Your task to perform on an android device: toggle priority inbox in the gmail app Image 0: 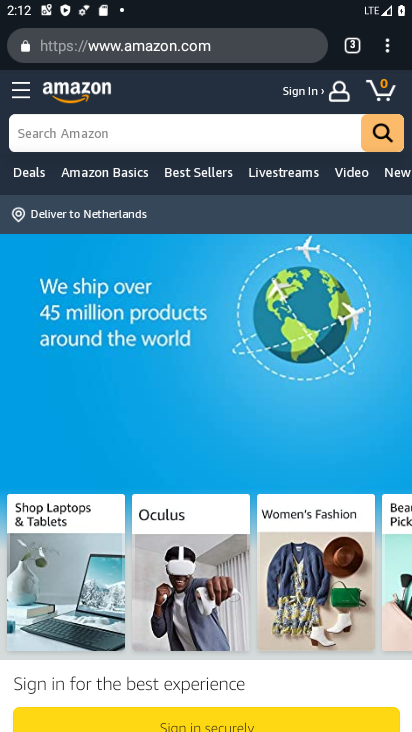
Step 0: press home button
Your task to perform on an android device: toggle priority inbox in the gmail app Image 1: 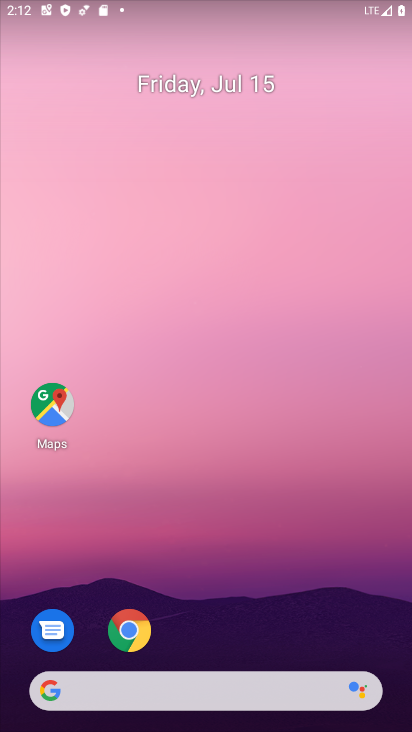
Step 1: drag from (270, 617) to (257, 113)
Your task to perform on an android device: toggle priority inbox in the gmail app Image 2: 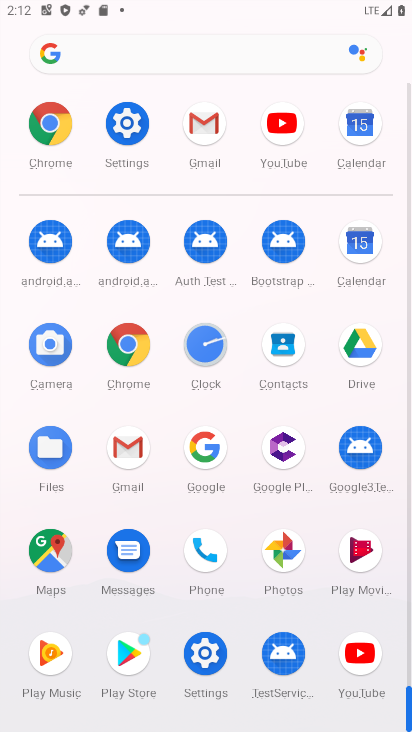
Step 2: click (205, 126)
Your task to perform on an android device: toggle priority inbox in the gmail app Image 3: 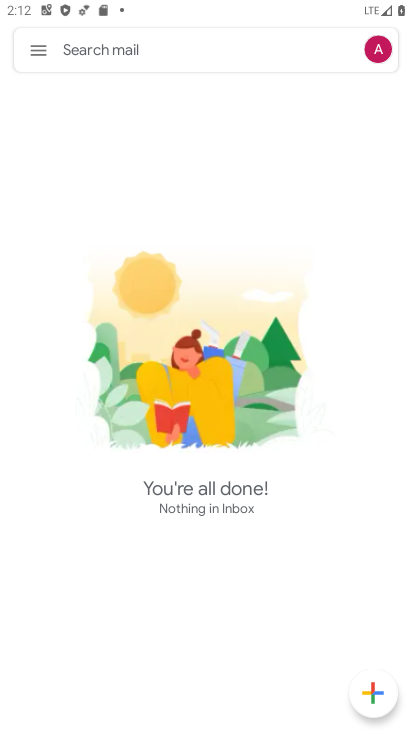
Step 3: click (40, 54)
Your task to perform on an android device: toggle priority inbox in the gmail app Image 4: 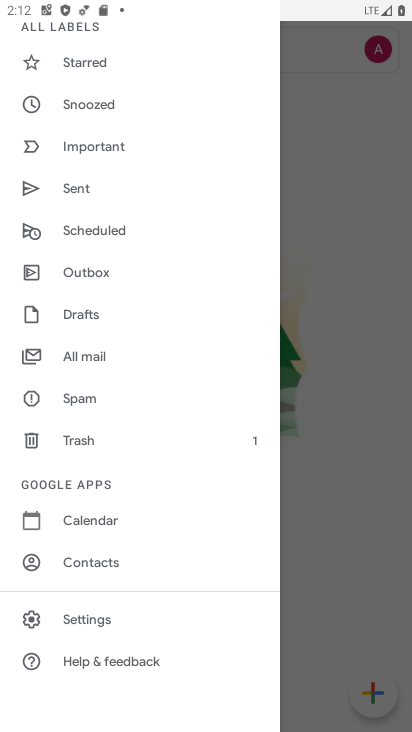
Step 4: click (104, 615)
Your task to perform on an android device: toggle priority inbox in the gmail app Image 5: 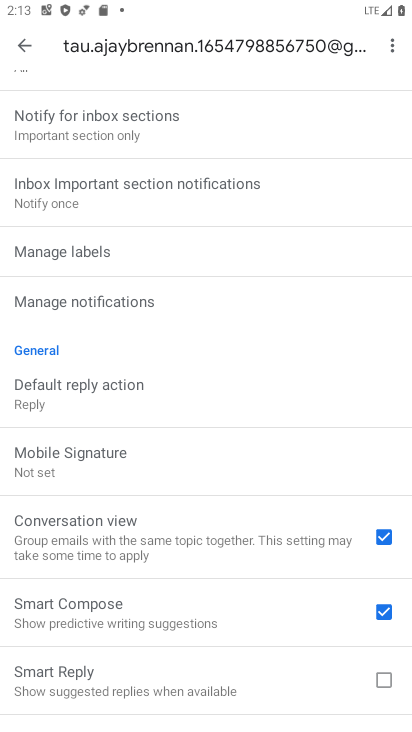
Step 5: drag from (234, 150) to (226, 380)
Your task to perform on an android device: toggle priority inbox in the gmail app Image 6: 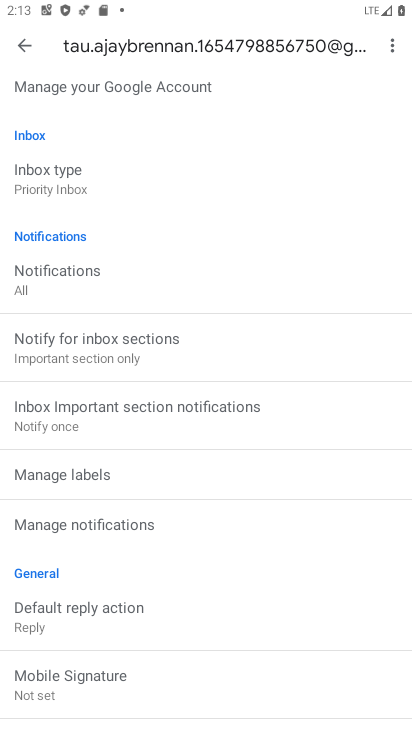
Step 6: click (70, 180)
Your task to perform on an android device: toggle priority inbox in the gmail app Image 7: 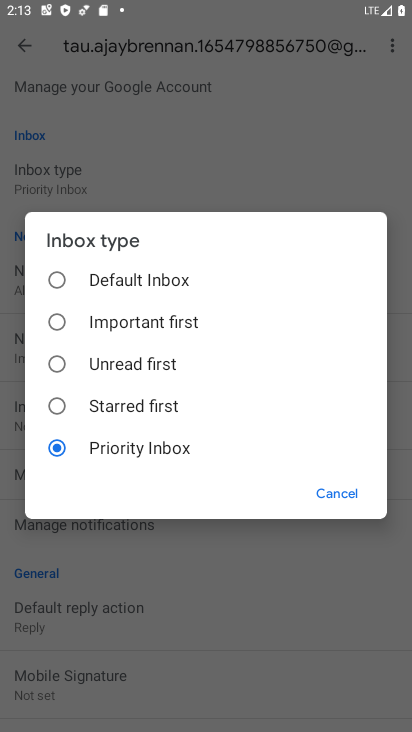
Step 7: click (68, 290)
Your task to perform on an android device: toggle priority inbox in the gmail app Image 8: 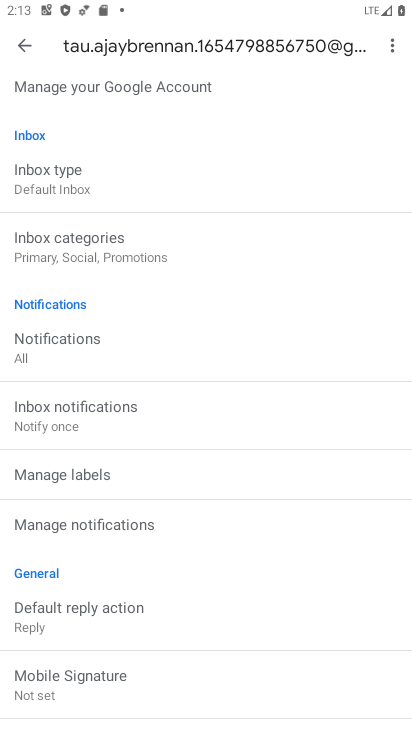
Step 8: task complete